Your task to perform on an android device: toggle pop-ups in chrome Image 0: 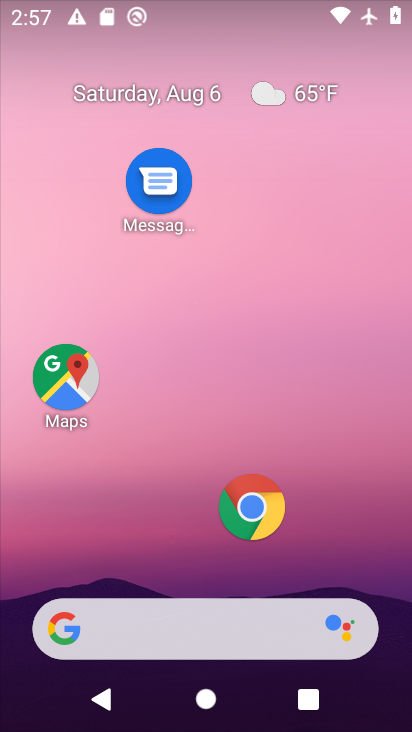
Step 0: click (243, 504)
Your task to perform on an android device: toggle pop-ups in chrome Image 1: 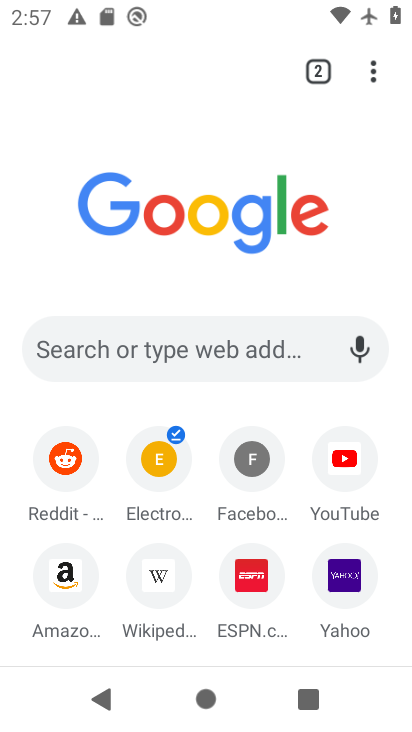
Step 1: click (372, 71)
Your task to perform on an android device: toggle pop-ups in chrome Image 2: 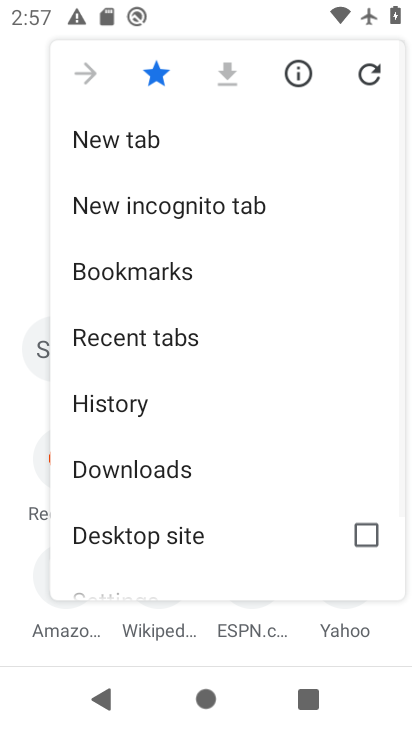
Step 2: drag from (192, 495) to (233, 316)
Your task to perform on an android device: toggle pop-ups in chrome Image 3: 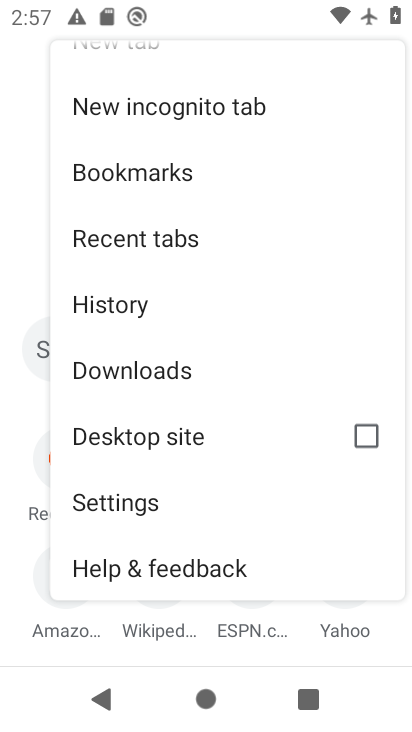
Step 3: click (107, 509)
Your task to perform on an android device: toggle pop-ups in chrome Image 4: 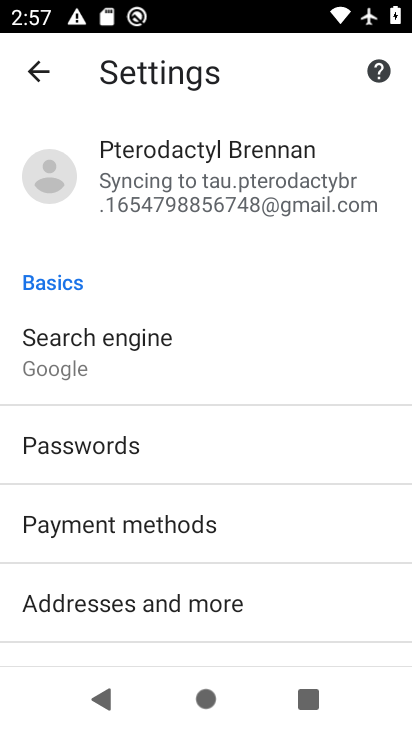
Step 4: drag from (146, 543) to (157, 406)
Your task to perform on an android device: toggle pop-ups in chrome Image 5: 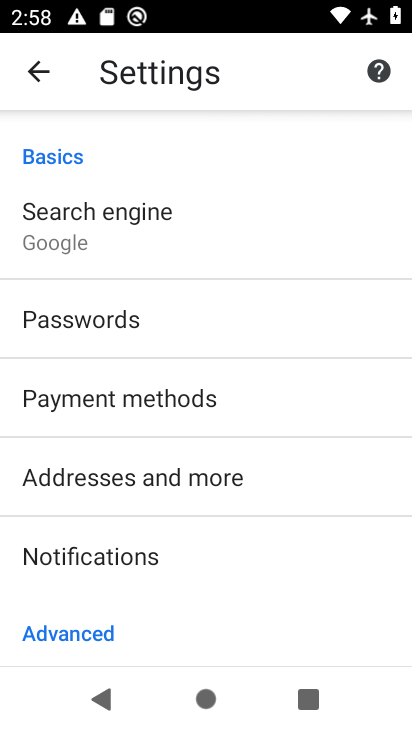
Step 5: drag from (152, 471) to (192, 198)
Your task to perform on an android device: toggle pop-ups in chrome Image 6: 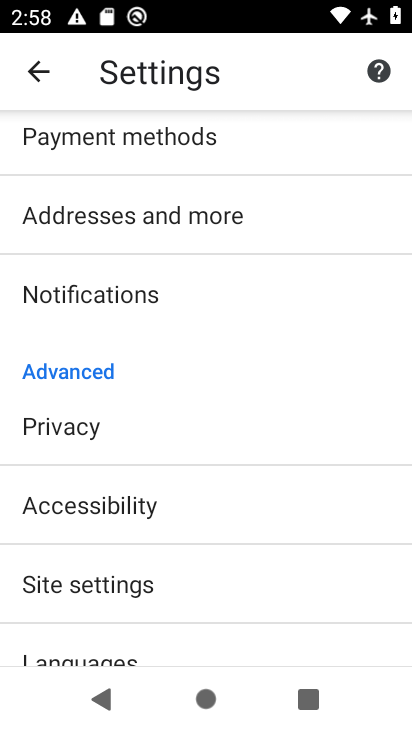
Step 6: click (89, 589)
Your task to perform on an android device: toggle pop-ups in chrome Image 7: 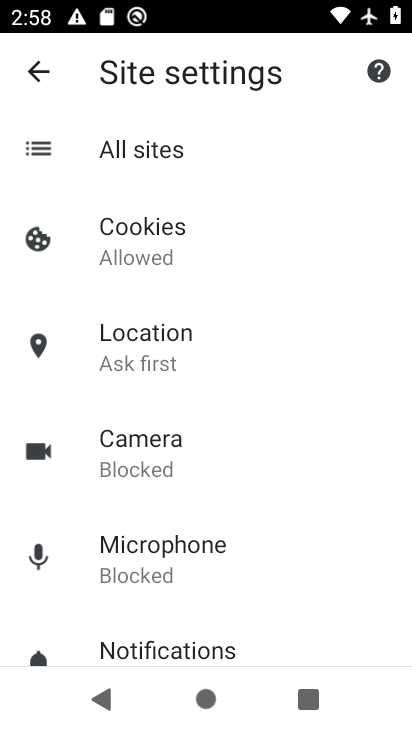
Step 7: drag from (170, 546) to (219, 248)
Your task to perform on an android device: toggle pop-ups in chrome Image 8: 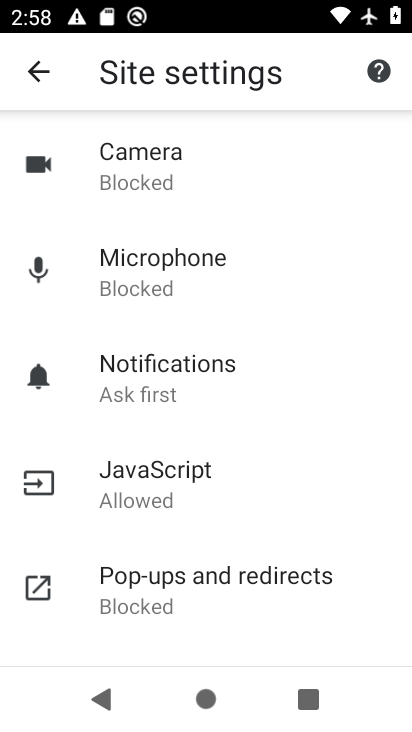
Step 8: click (151, 604)
Your task to perform on an android device: toggle pop-ups in chrome Image 9: 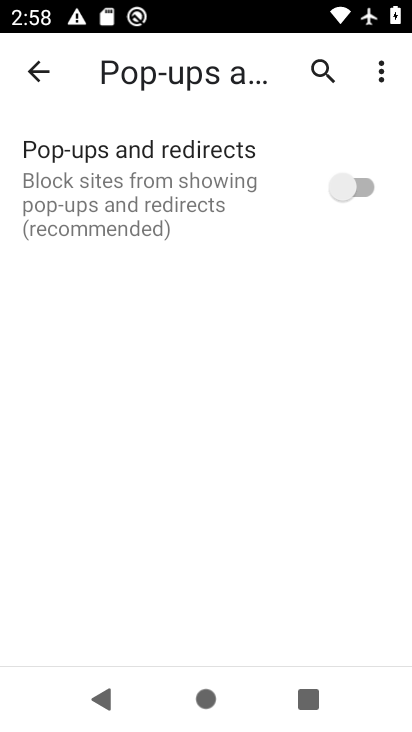
Step 9: click (325, 187)
Your task to perform on an android device: toggle pop-ups in chrome Image 10: 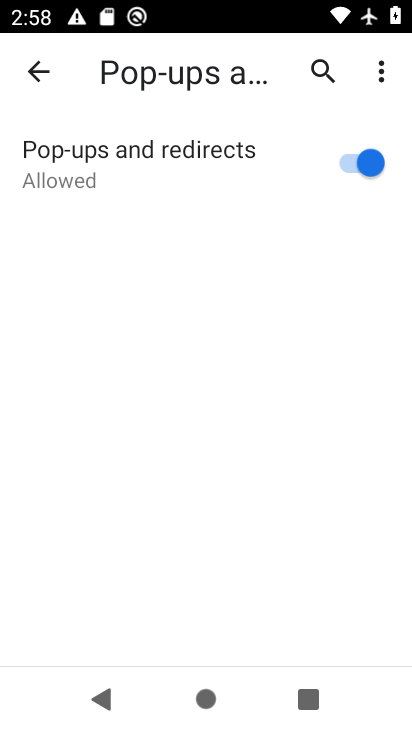
Step 10: task complete